Your task to perform on an android device: move an email to a new category in the gmail app Image 0: 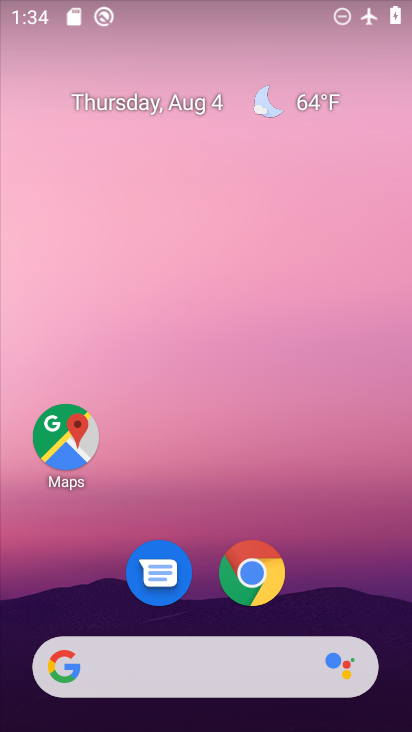
Step 0: drag from (376, 295) to (395, 56)
Your task to perform on an android device: move an email to a new category in the gmail app Image 1: 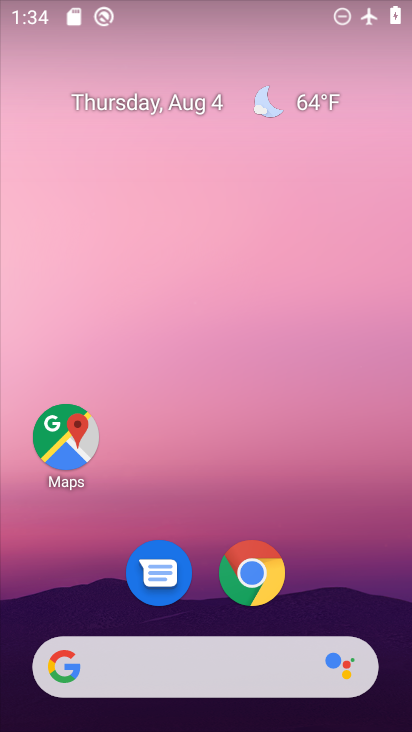
Step 1: drag from (349, 545) to (293, 3)
Your task to perform on an android device: move an email to a new category in the gmail app Image 2: 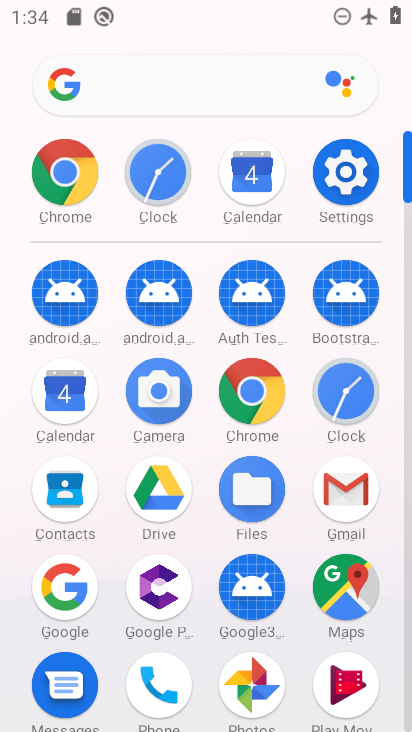
Step 2: drag from (346, 576) to (355, 291)
Your task to perform on an android device: move an email to a new category in the gmail app Image 3: 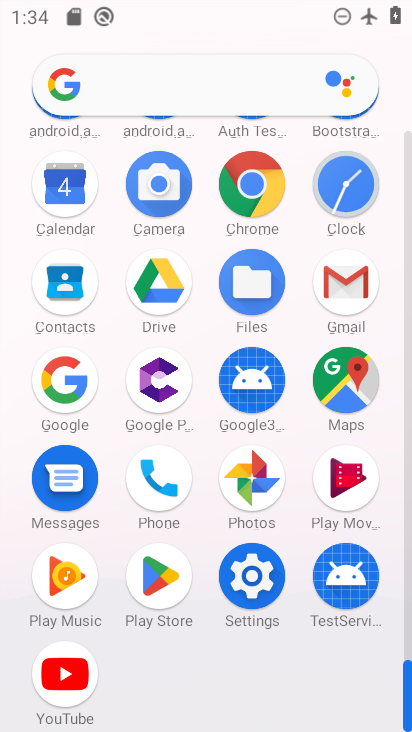
Step 3: click (337, 291)
Your task to perform on an android device: move an email to a new category in the gmail app Image 4: 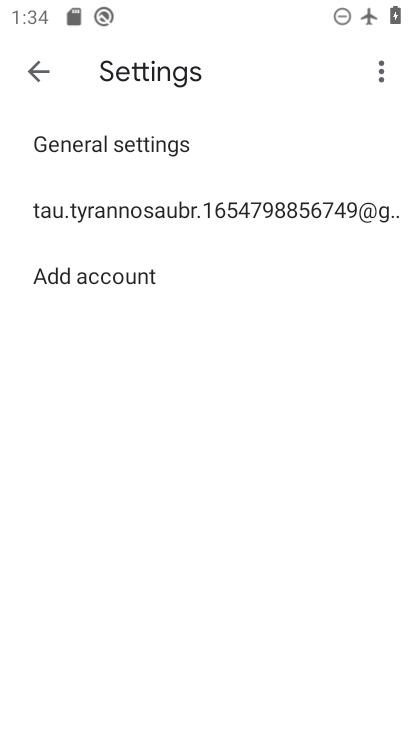
Step 4: click (55, 68)
Your task to perform on an android device: move an email to a new category in the gmail app Image 5: 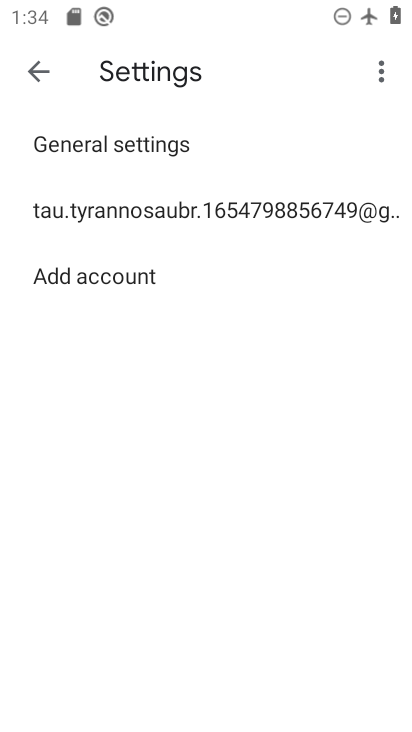
Step 5: click (55, 68)
Your task to perform on an android device: move an email to a new category in the gmail app Image 6: 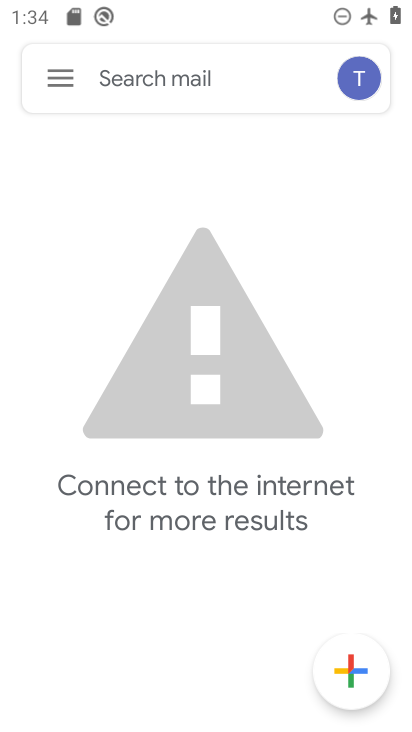
Step 6: click (55, 68)
Your task to perform on an android device: move an email to a new category in the gmail app Image 7: 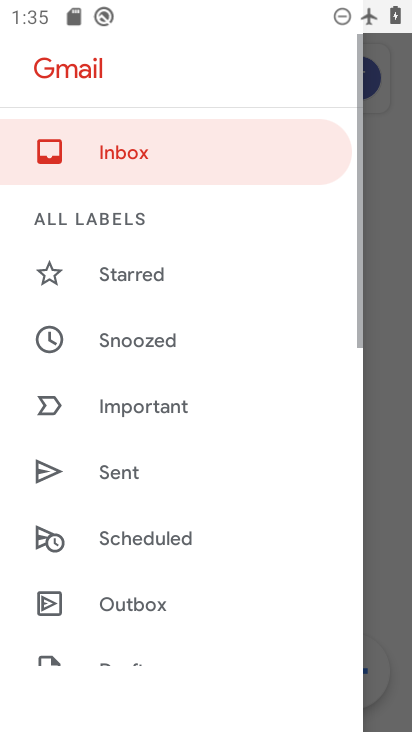
Step 7: drag from (206, 566) to (233, 73)
Your task to perform on an android device: move an email to a new category in the gmail app Image 8: 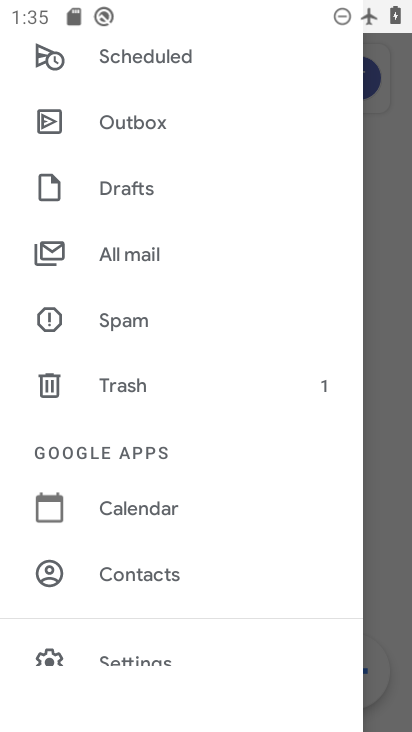
Step 8: drag from (211, 517) to (243, 144)
Your task to perform on an android device: move an email to a new category in the gmail app Image 9: 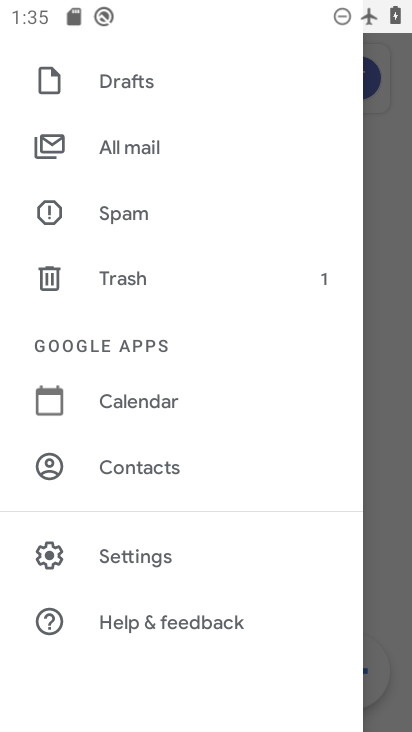
Step 9: click (136, 148)
Your task to perform on an android device: move an email to a new category in the gmail app Image 10: 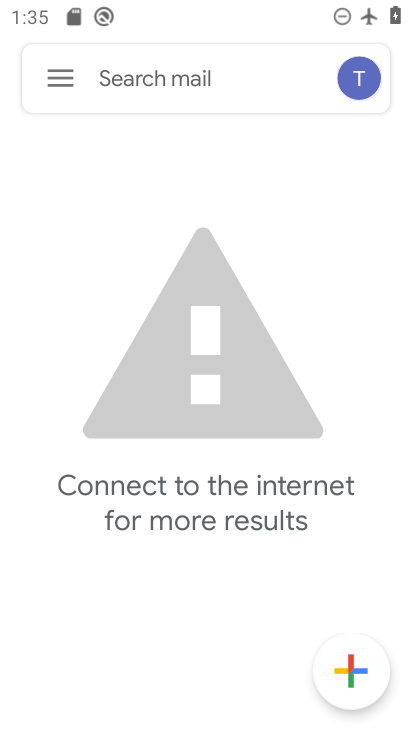
Step 10: task complete